Your task to perform on an android device: choose inbox layout in the gmail app Image 0: 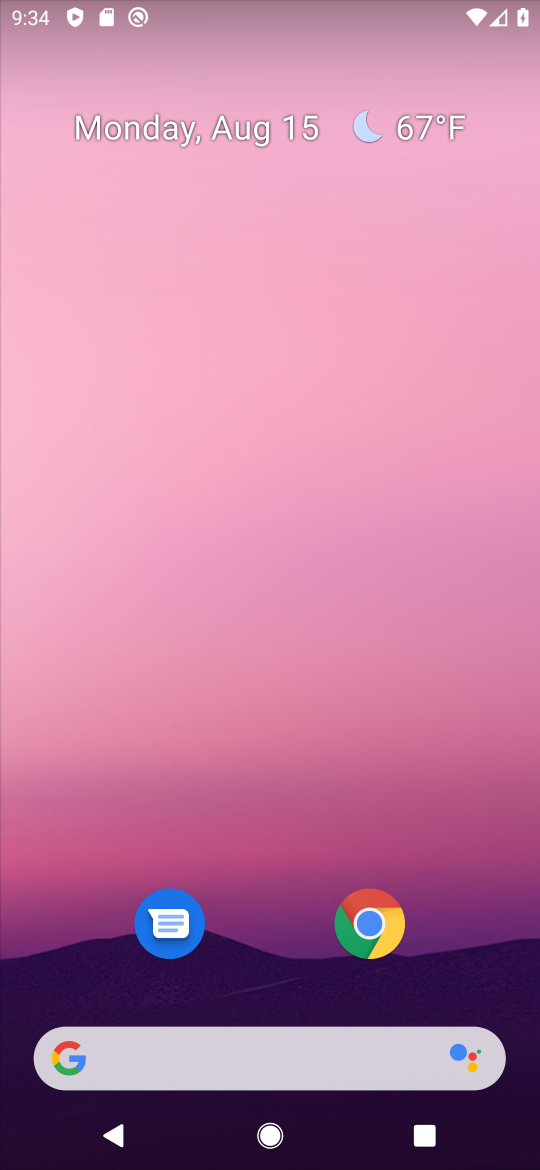
Step 0: drag from (78, 836) to (446, 155)
Your task to perform on an android device: choose inbox layout in the gmail app Image 1: 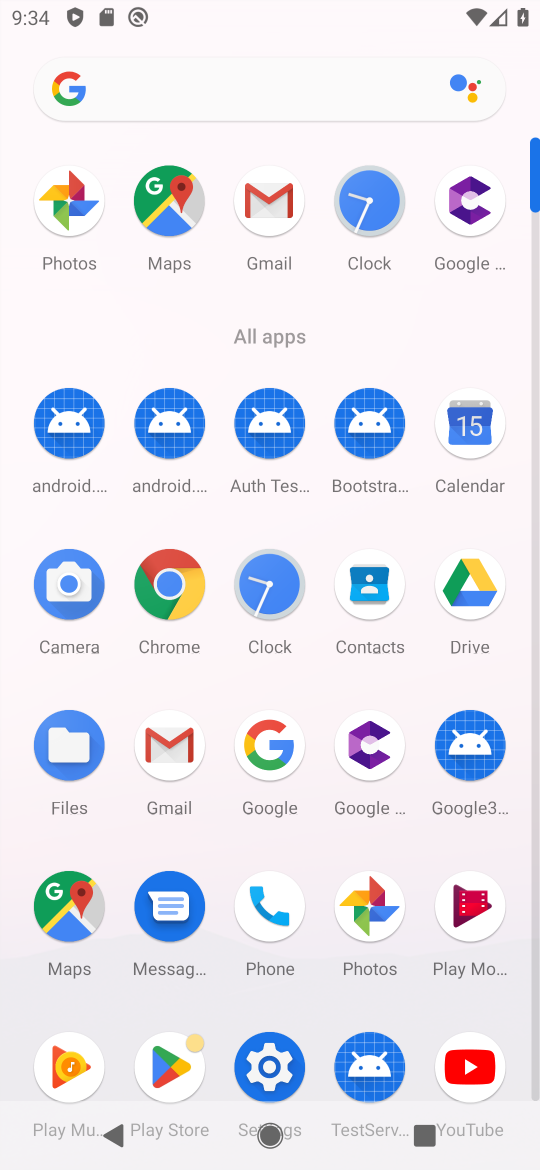
Step 1: click (256, 215)
Your task to perform on an android device: choose inbox layout in the gmail app Image 2: 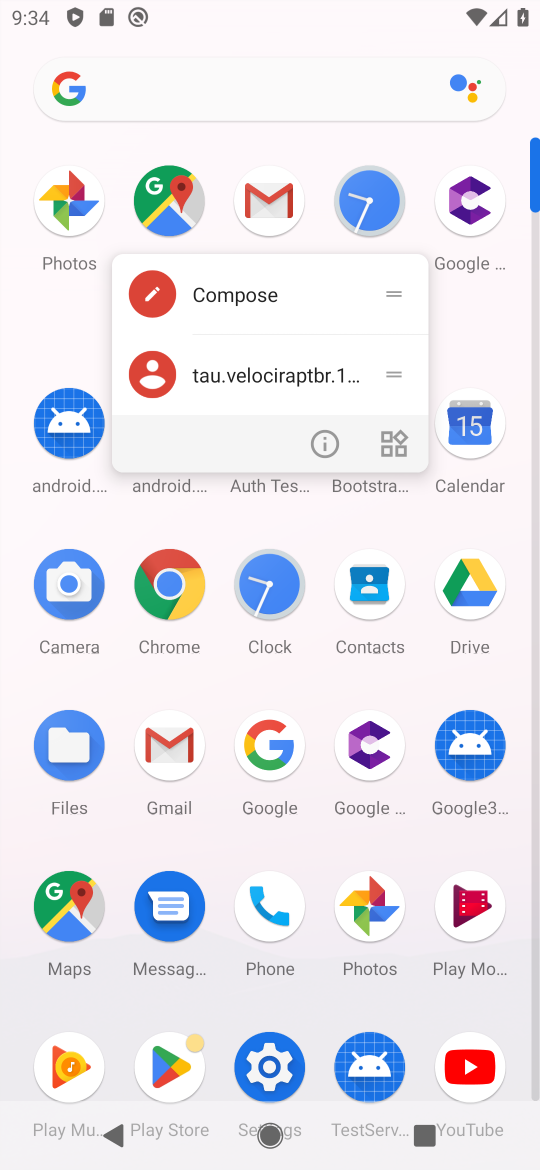
Step 2: click (278, 205)
Your task to perform on an android device: choose inbox layout in the gmail app Image 3: 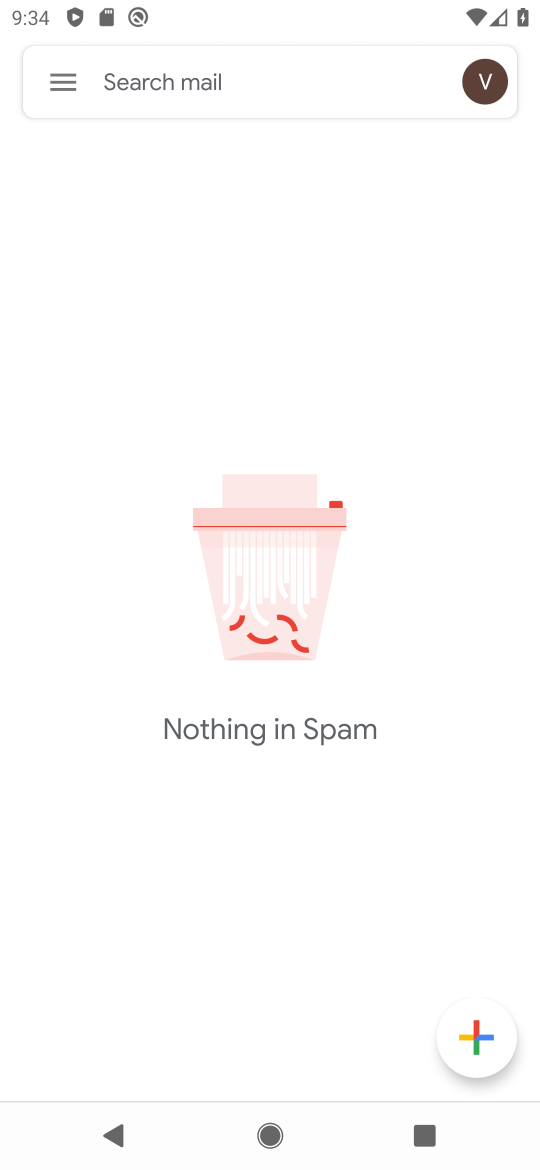
Step 3: task complete